Your task to perform on an android device: Find coffee shops on Maps Image 0: 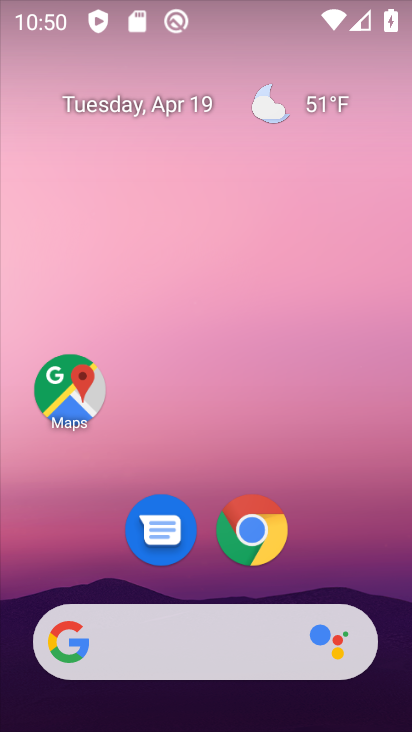
Step 0: click (70, 396)
Your task to perform on an android device: Find coffee shops on Maps Image 1: 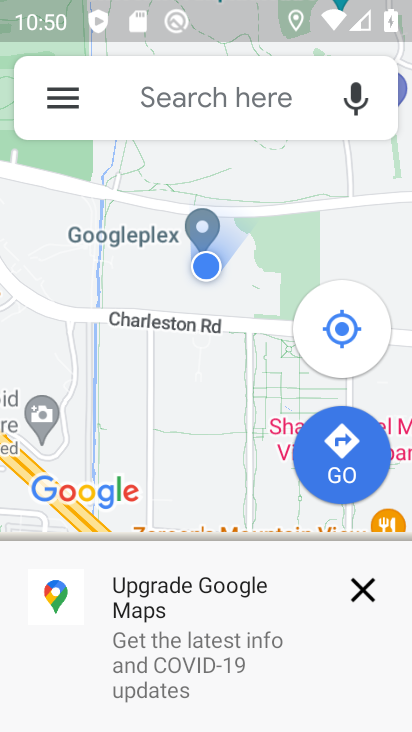
Step 1: click (173, 87)
Your task to perform on an android device: Find coffee shops on Maps Image 2: 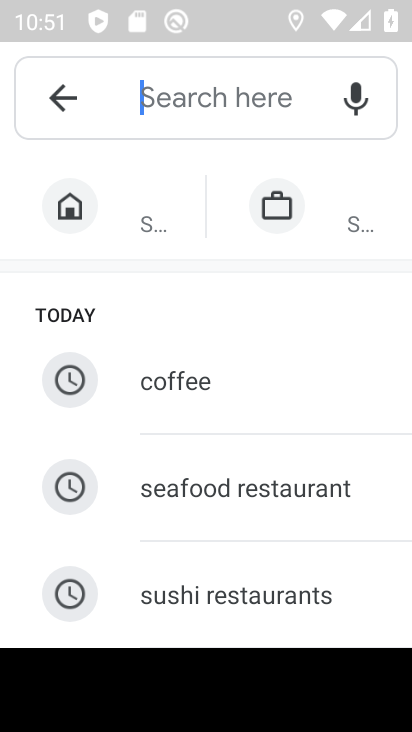
Step 2: click (163, 372)
Your task to perform on an android device: Find coffee shops on Maps Image 3: 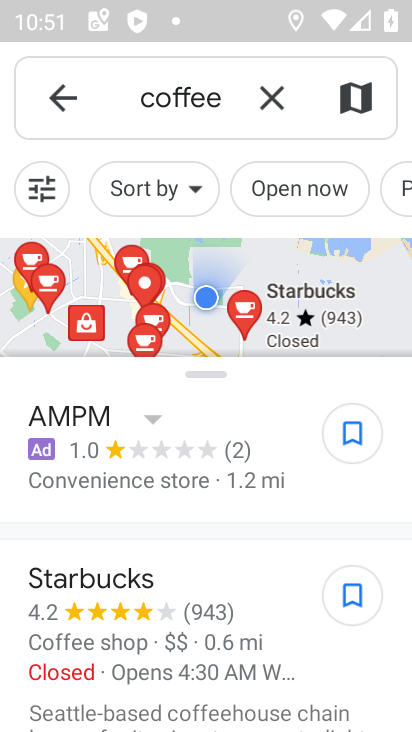
Step 3: task complete